Your task to perform on an android device: Play the last video I watched on Youtube Image 0: 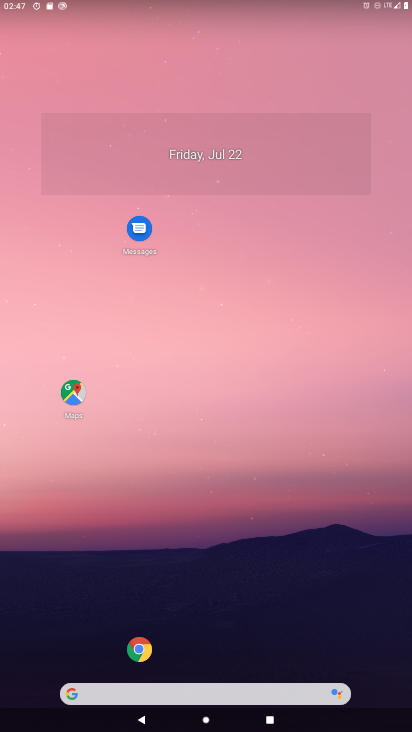
Step 0: drag from (51, 682) to (152, 225)
Your task to perform on an android device: Play the last video I watched on Youtube Image 1: 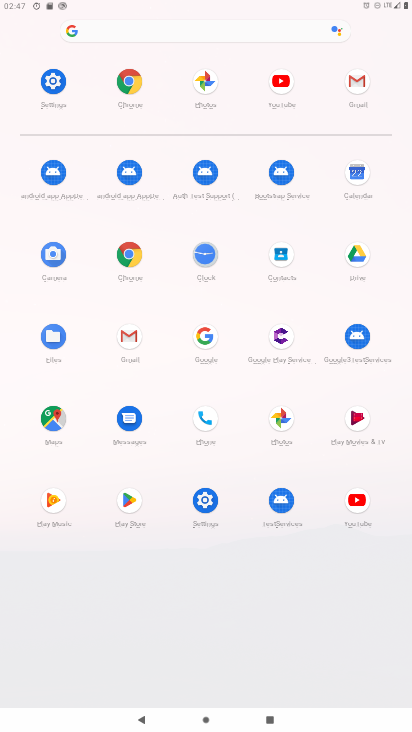
Step 1: click (349, 493)
Your task to perform on an android device: Play the last video I watched on Youtube Image 2: 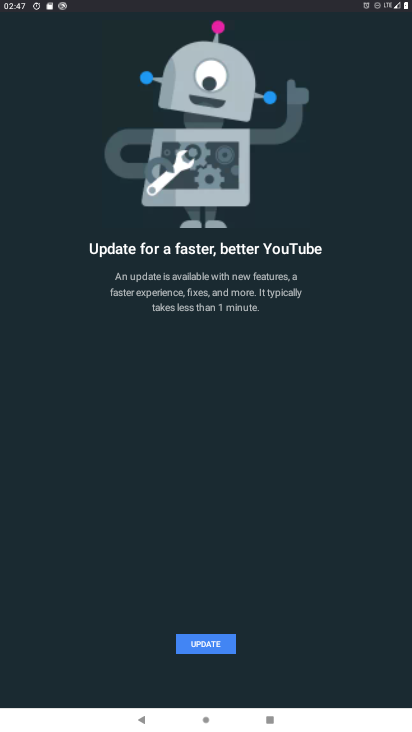
Step 2: click (189, 643)
Your task to perform on an android device: Play the last video I watched on Youtube Image 3: 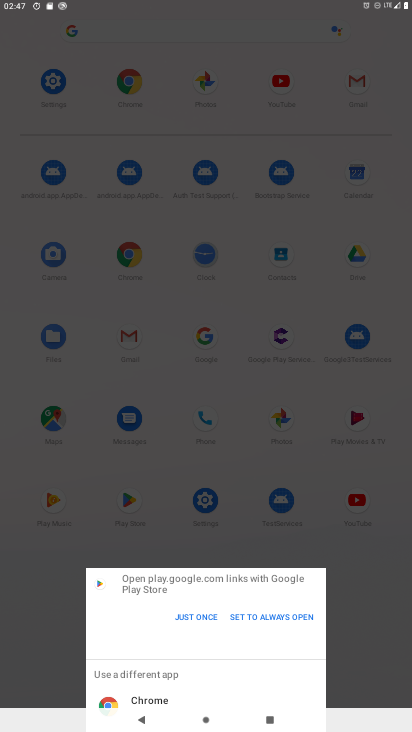
Step 3: click (200, 620)
Your task to perform on an android device: Play the last video I watched on Youtube Image 4: 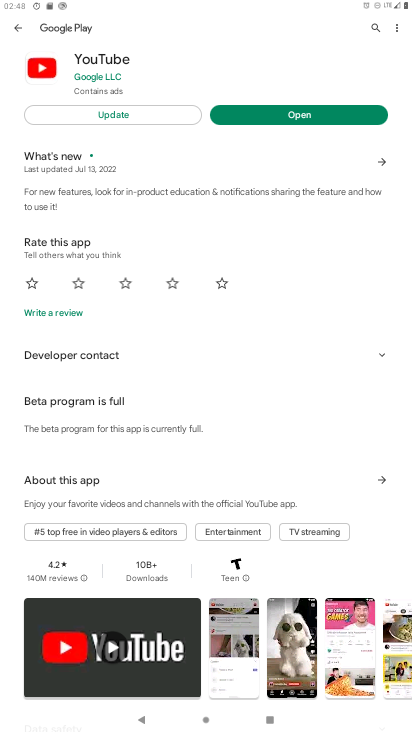
Step 4: task complete